Your task to perform on an android device: Open network settings Image 0: 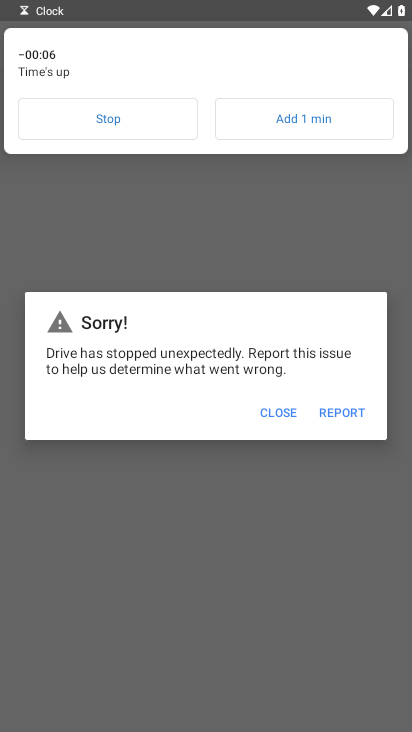
Step 0: click (125, 128)
Your task to perform on an android device: Open network settings Image 1: 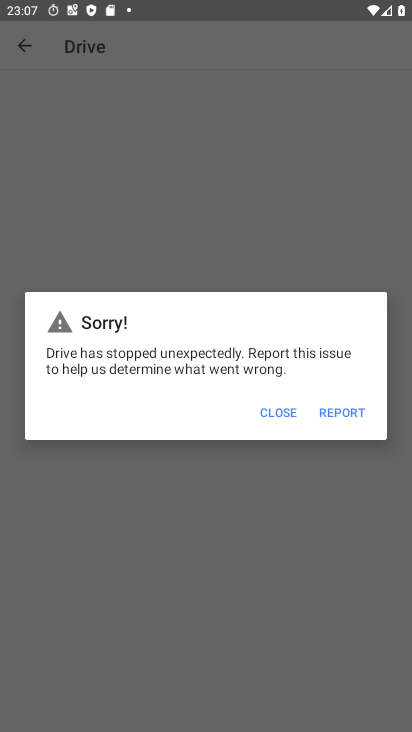
Step 1: press home button
Your task to perform on an android device: Open network settings Image 2: 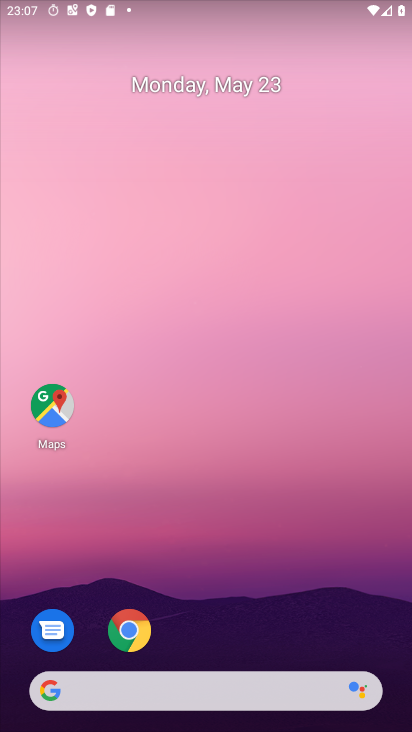
Step 2: drag from (270, 650) to (273, 2)
Your task to perform on an android device: Open network settings Image 3: 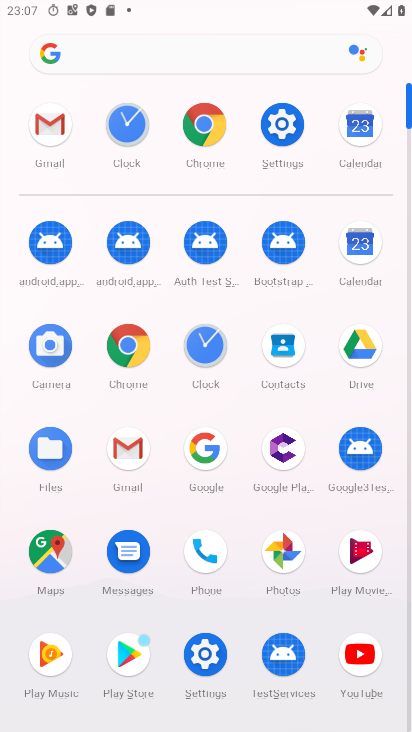
Step 3: click (279, 129)
Your task to perform on an android device: Open network settings Image 4: 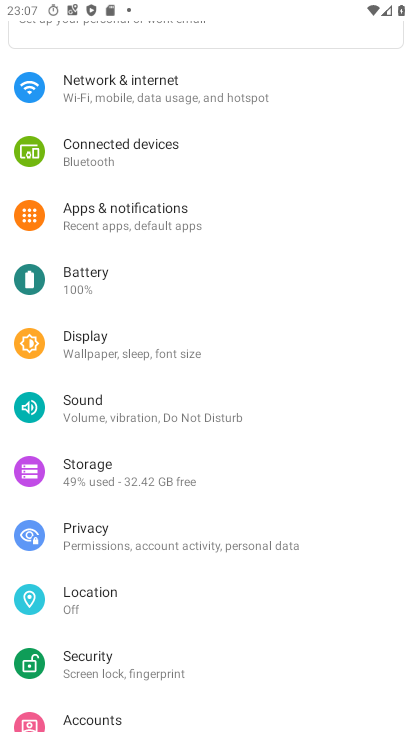
Step 4: click (83, 95)
Your task to perform on an android device: Open network settings Image 5: 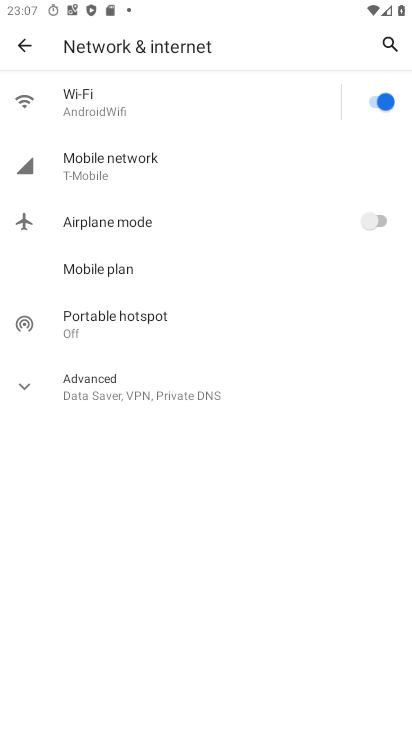
Step 5: click (80, 163)
Your task to perform on an android device: Open network settings Image 6: 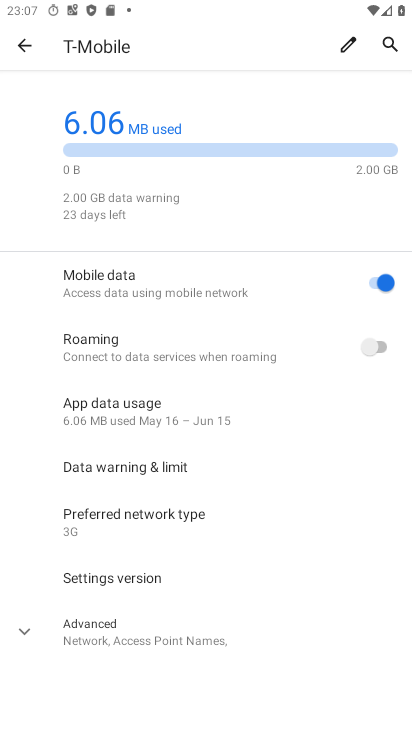
Step 6: drag from (134, 539) to (139, 371)
Your task to perform on an android device: Open network settings Image 7: 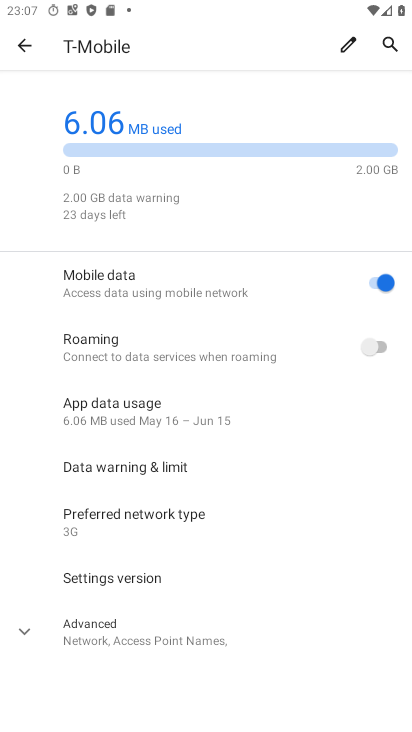
Step 7: click (26, 632)
Your task to perform on an android device: Open network settings Image 8: 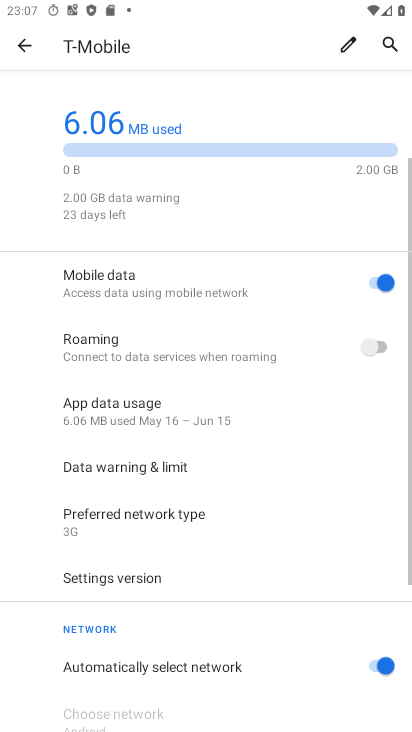
Step 8: task complete